Your task to perform on an android device: Open settings on Google Maps Image 0: 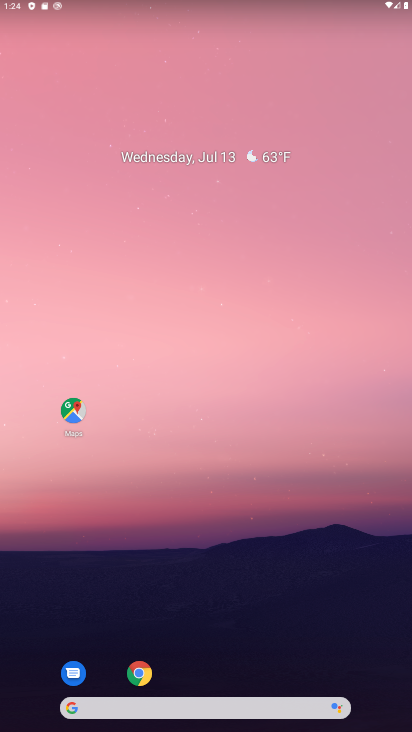
Step 0: drag from (223, 577) to (222, 358)
Your task to perform on an android device: Open settings on Google Maps Image 1: 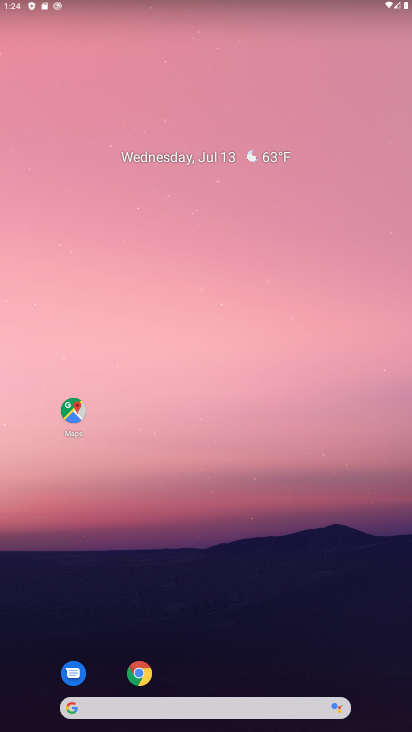
Step 1: drag from (210, 580) to (213, 214)
Your task to perform on an android device: Open settings on Google Maps Image 2: 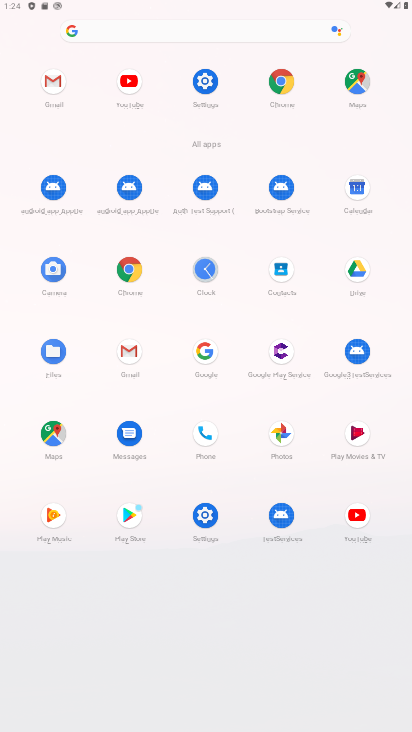
Step 2: click (58, 431)
Your task to perform on an android device: Open settings on Google Maps Image 3: 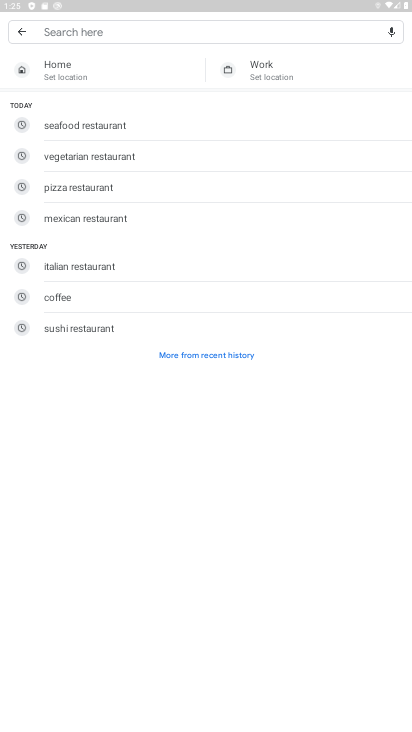
Step 3: click (18, 35)
Your task to perform on an android device: Open settings on Google Maps Image 4: 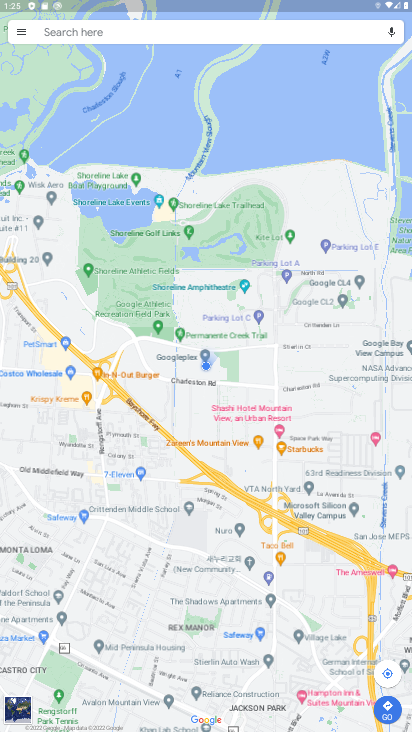
Step 4: click (18, 27)
Your task to perform on an android device: Open settings on Google Maps Image 5: 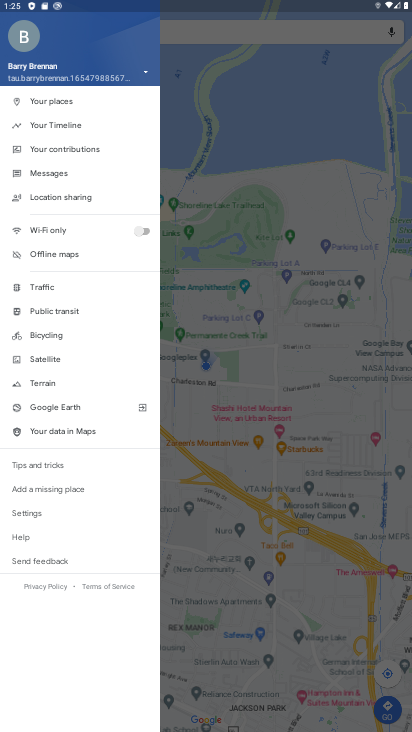
Step 5: click (40, 509)
Your task to perform on an android device: Open settings on Google Maps Image 6: 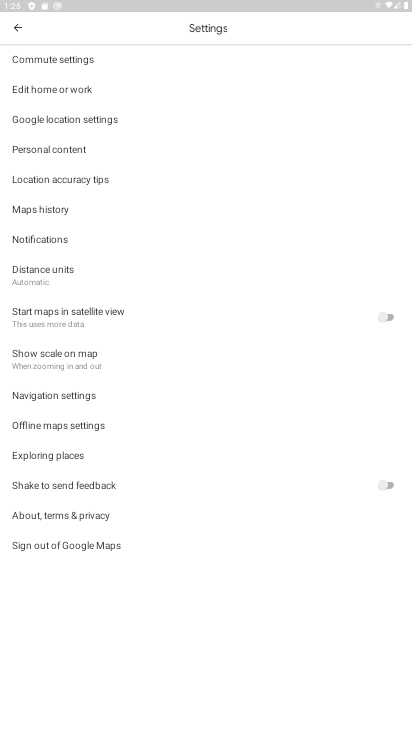
Step 6: task complete